Your task to perform on an android device: change the clock display to show seconds Image 0: 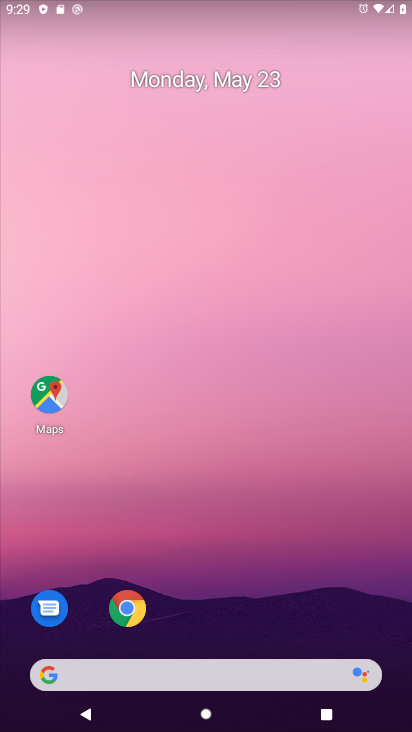
Step 0: drag from (256, 620) to (216, 146)
Your task to perform on an android device: change the clock display to show seconds Image 1: 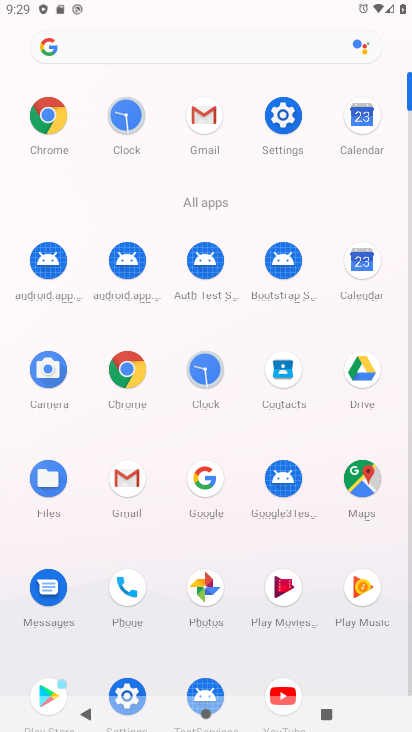
Step 1: click (133, 120)
Your task to perform on an android device: change the clock display to show seconds Image 2: 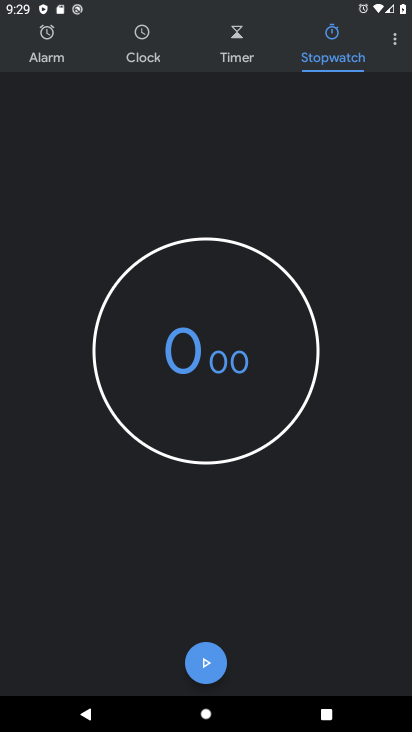
Step 2: click (392, 44)
Your task to perform on an android device: change the clock display to show seconds Image 3: 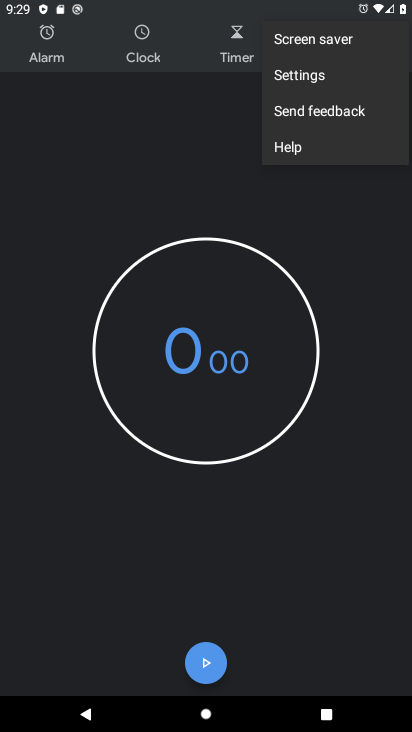
Step 3: click (359, 74)
Your task to perform on an android device: change the clock display to show seconds Image 4: 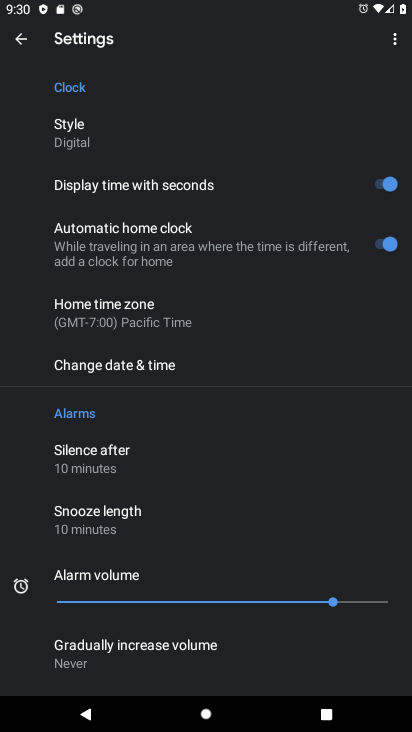
Step 4: task complete